Your task to perform on an android device: open device folders in google photos Image 0: 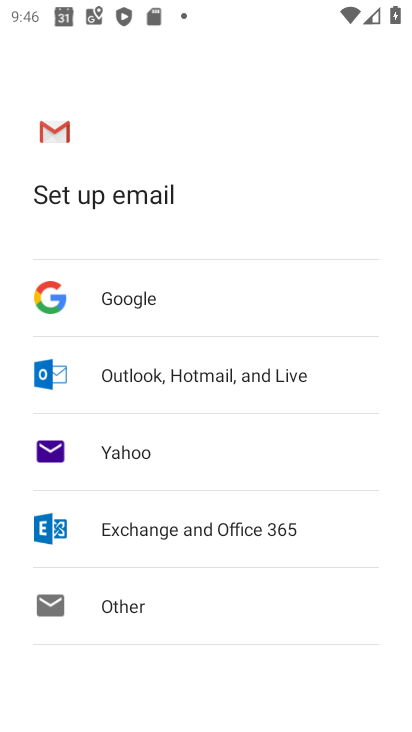
Step 0: press home button
Your task to perform on an android device: open device folders in google photos Image 1: 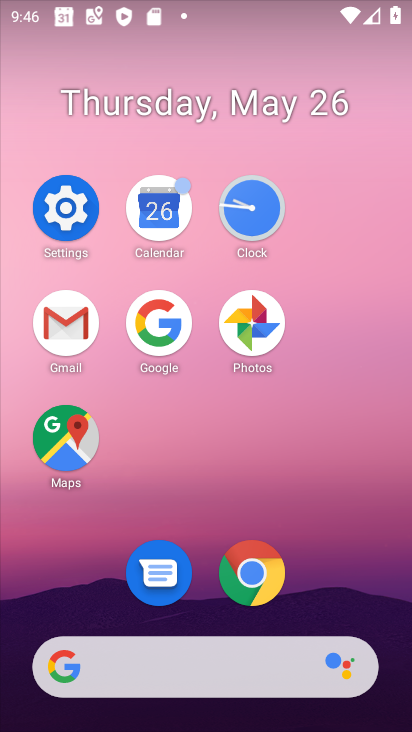
Step 1: click (252, 337)
Your task to perform on an android device: open device folders in google photos Image 2: 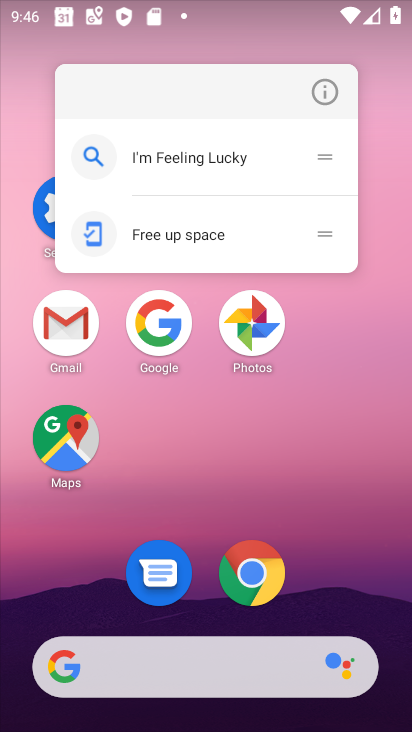
Step 2: click (235, 348)
Your task to perform on an android device: open device folders in google photos Image 3: 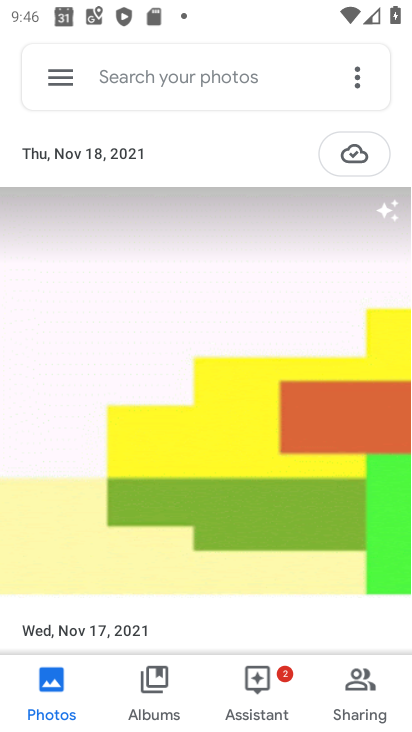
Step 3: click (81, 89)
Your task to perform on an android device: open device folders in google photos Image 4: 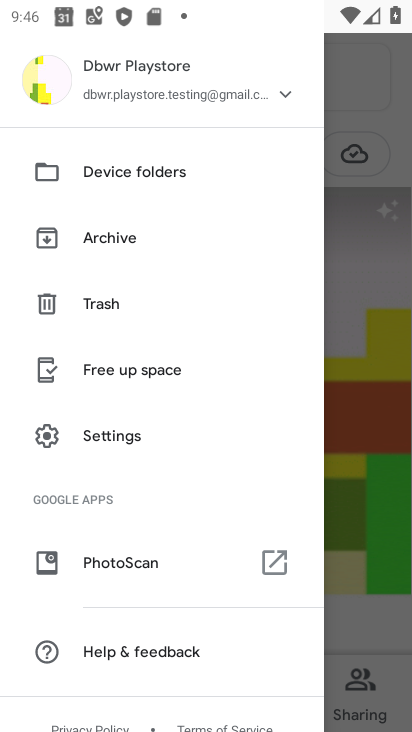
Step 4: click (140, 185)
Your task to perform on an android device: open device folders in google photos Image 5: 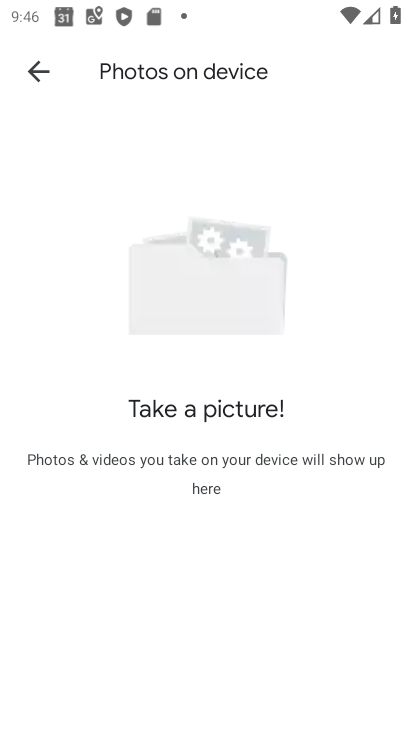
Step 5: task complete